Your task to perform on an android device: Go to wifi settings Image 0: 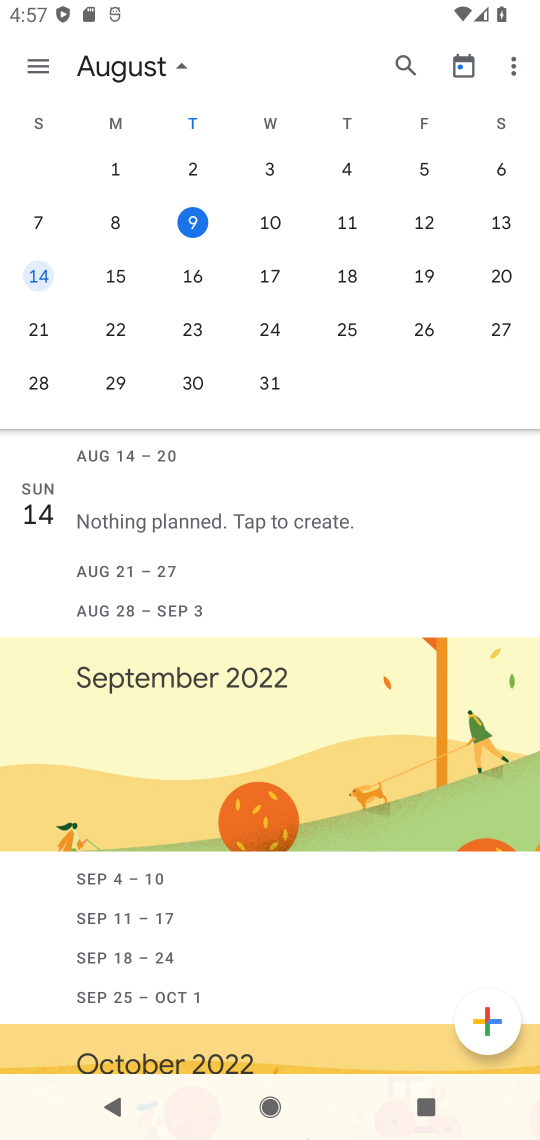
Step 0: press home button
Your task to perform on an android device: Go to wifi settings Image 1: 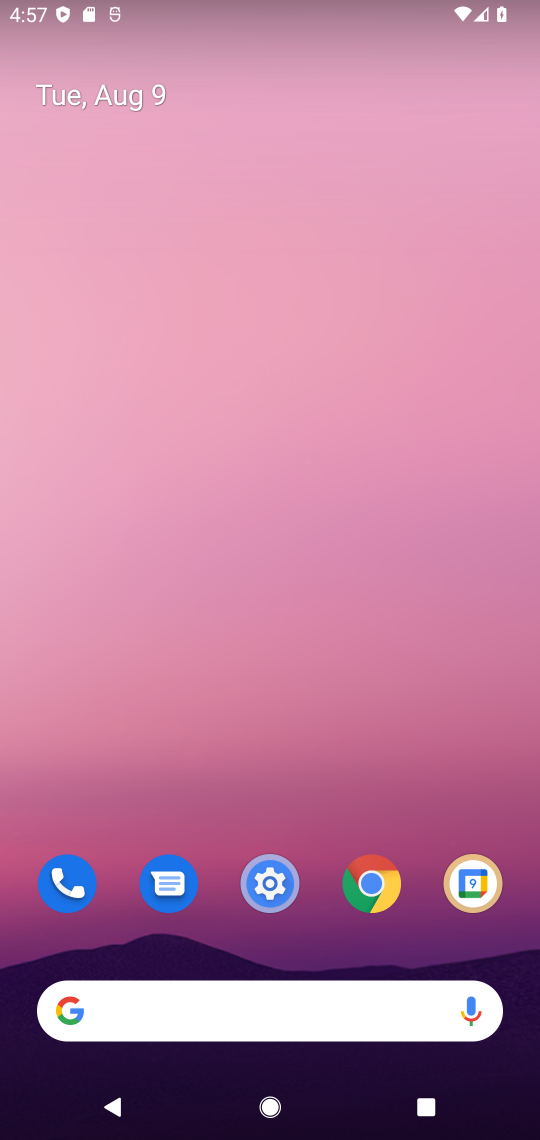
Step 1: click (252, 883)
Your task to perform on an android device: Go to wifi settings Image 2: 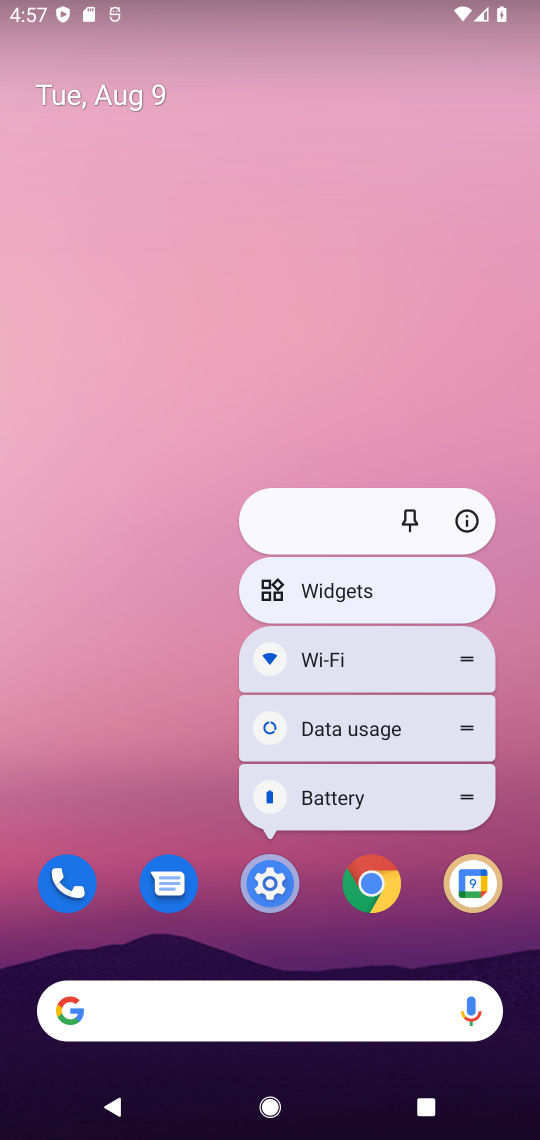
Step 2: click (278, 899)
Your task to perform on an android device: Go to wifi settings Image 3: 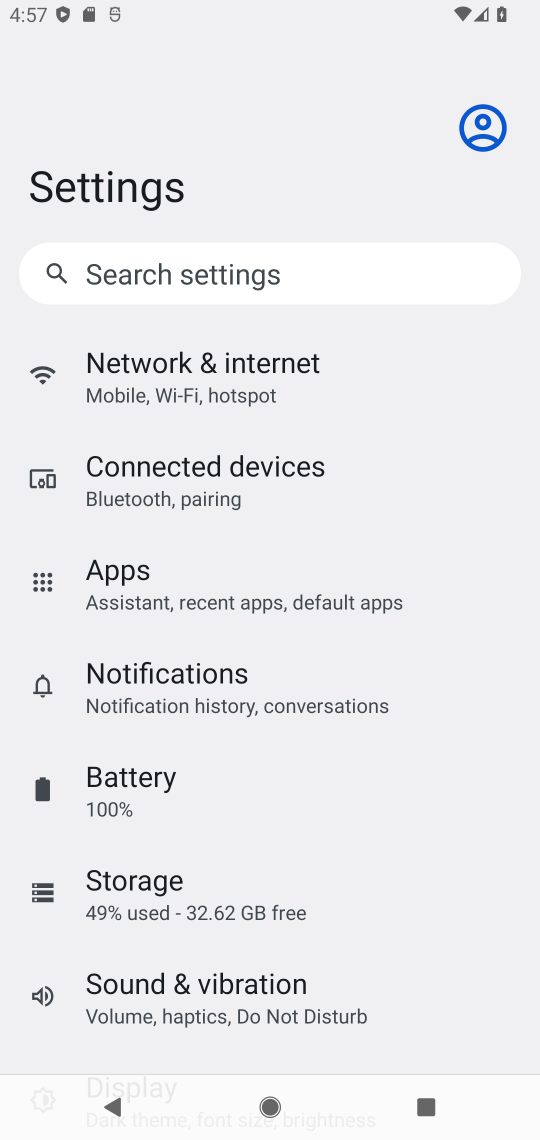
Step 3: click (186, 391)
Your task to perform on an android device: Go to wifi settings Image 4: 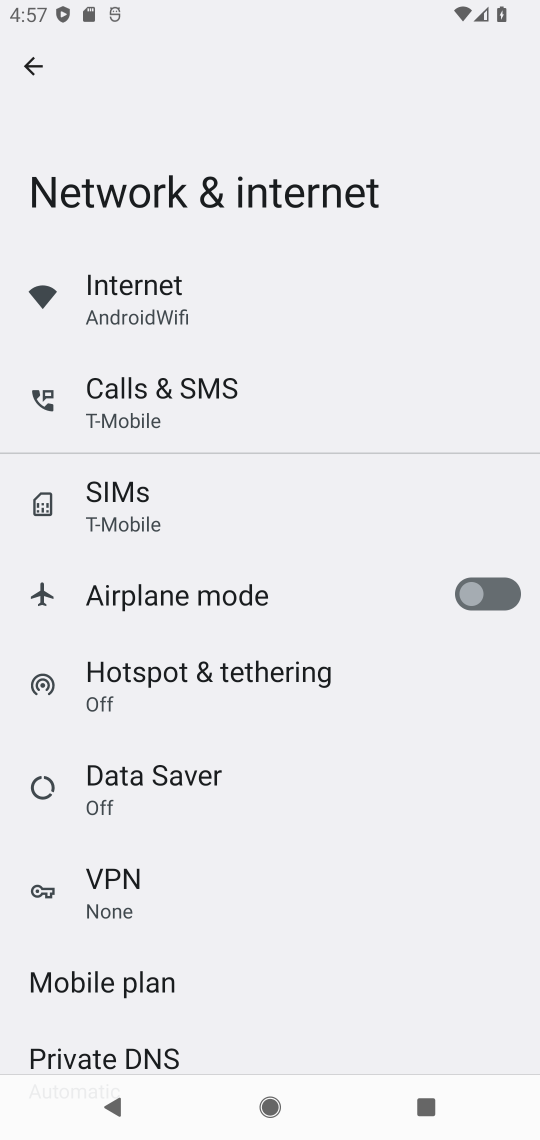
Step 4: click (197, 312)
Your task to perform on an android device: Go to wifi settings Image 5: 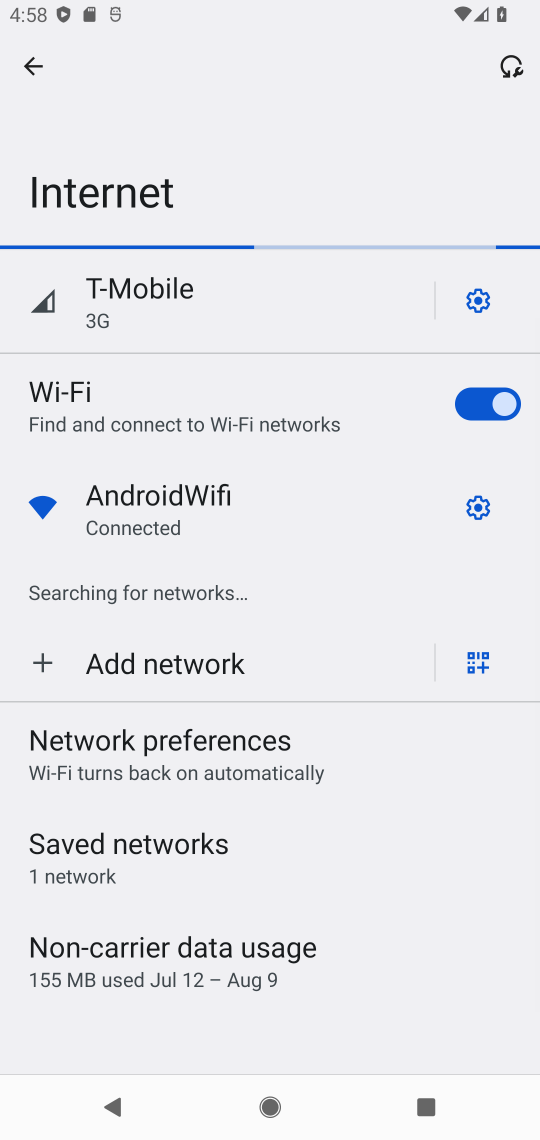
Step 5: click (161, 404)
Your task to perform on an android device: Go to wifi settings Image 6: 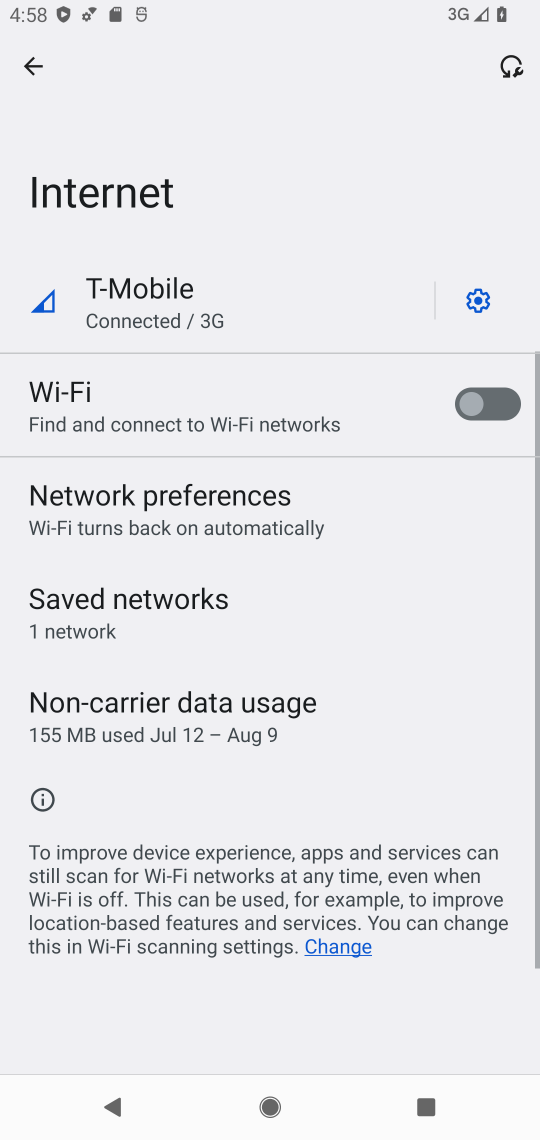
Step 6: click (499, 406)
Your task to perform on an android device: Go to wifi settings Image 7: 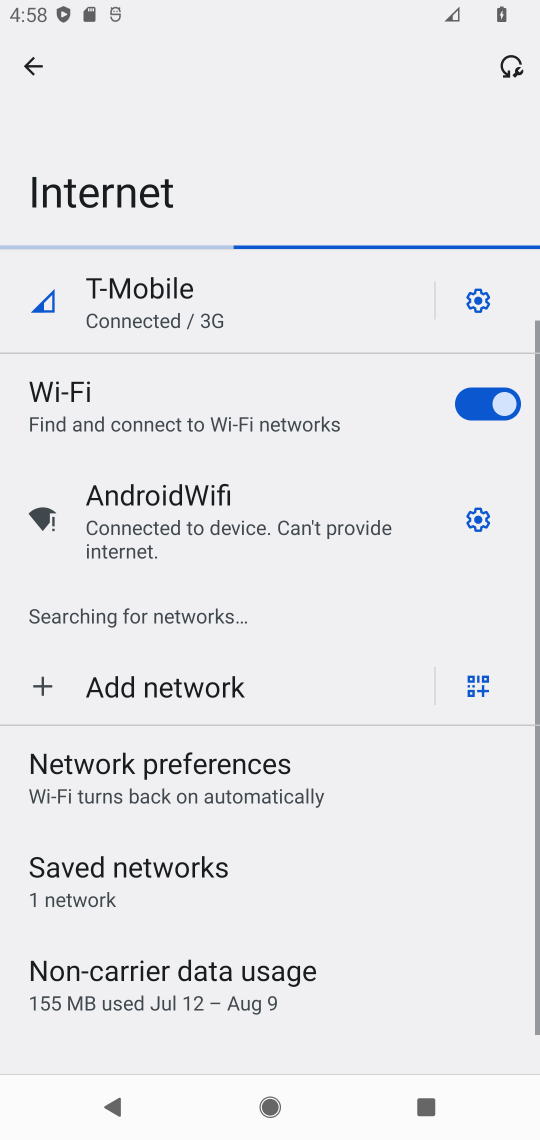
Step 7: task complete